Your task to perform on an android device: Open display settings Image 0: 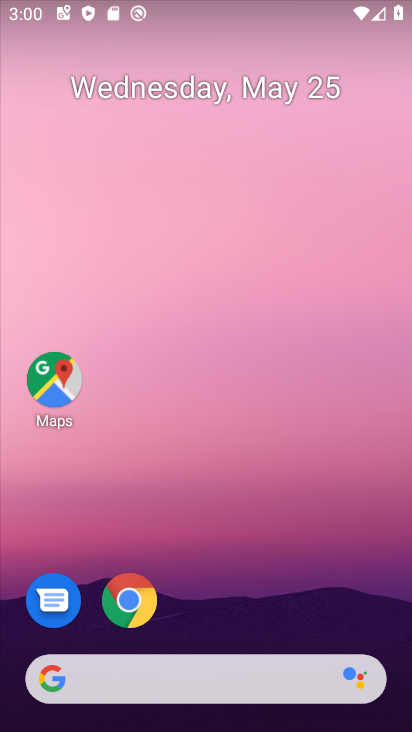
Step 0: press home button
Your task to perform on an android device: Open display settings Image 1: 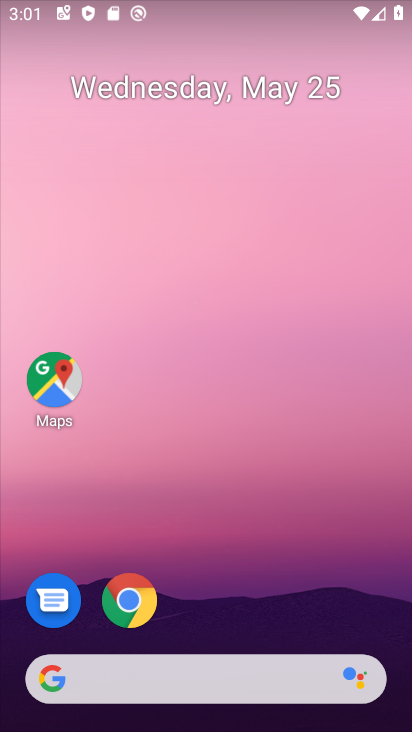
Step 1: drag from (51, 579) to (293, 119)
Your task to perform on an android device: Open display settings Image 2: 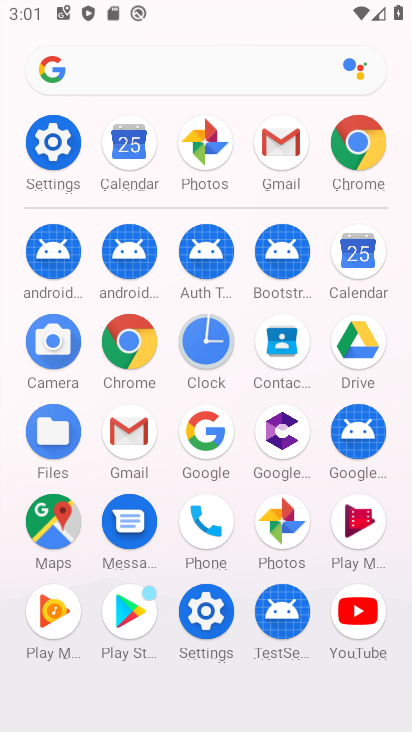
Step 2: click (40, 136)
Your task to perform on an android device: Open display settings Image 3: 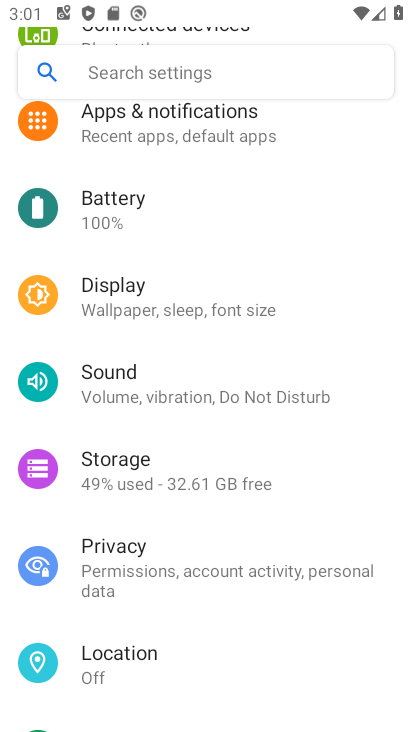
Step 3: click (128, 320)
Your task to perform on an android device: Open display settings Image 4: 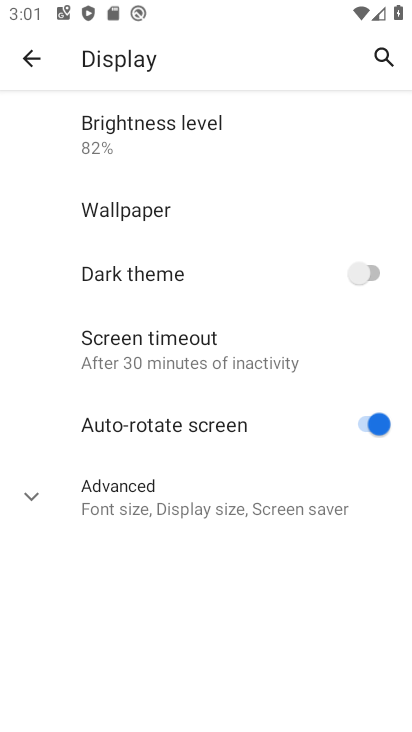
Step 4: task complete